Your task to perform on an android device: Turn on the flashlight Image 0: 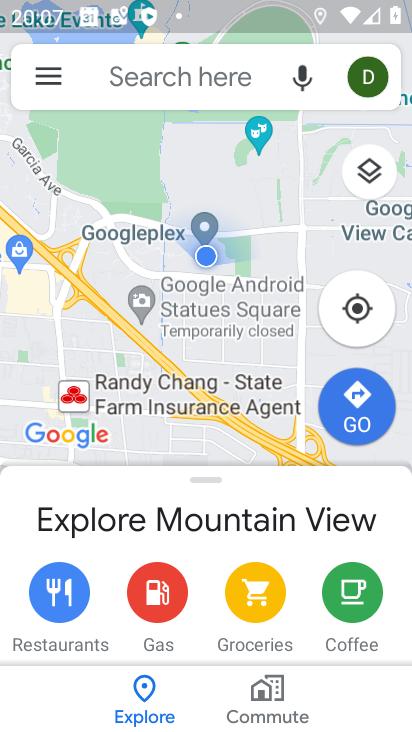
Step 0: press home button
Your task to perform on an android device: Turn on the flashlight Image 1: 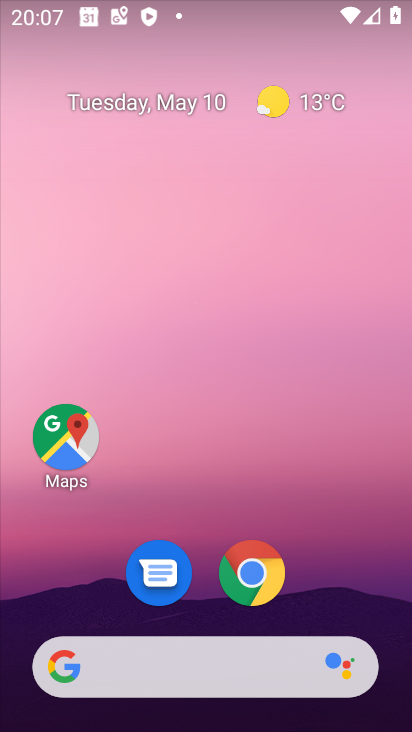
Step 1: task complete